Your task to perform on an android device: see sites visited before in the chrome app Image 0: 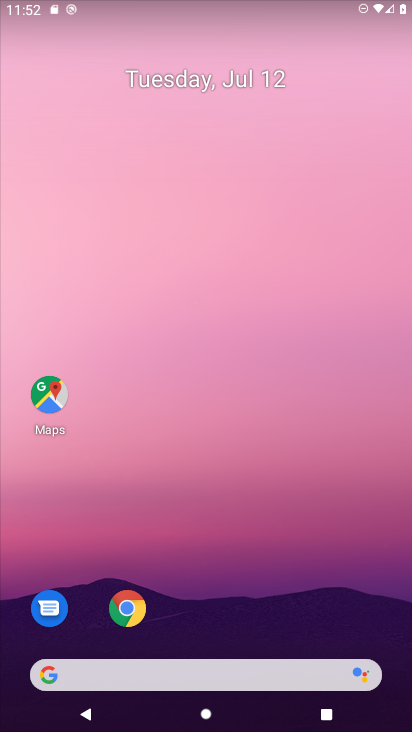
Step 0: drag from (258, 688) to (258, 131)
Your task to perform on an android device: see sites visited before in the chrome app Image 1: 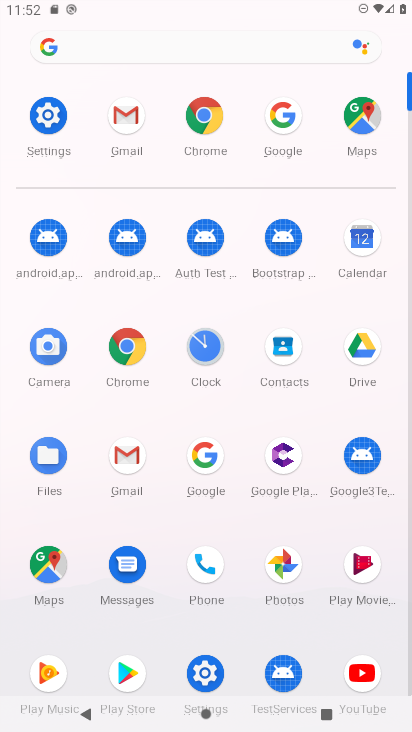
Step 1: click (202, 118)
Your task to perform on an android device: see sites visited before in the chrome app Image 2: 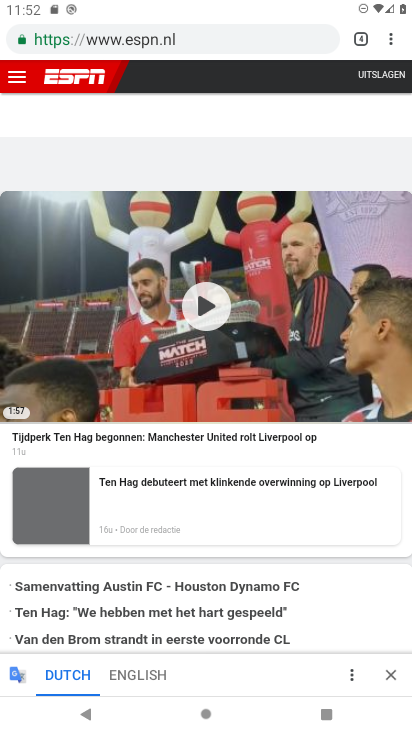
Step 2: click (392, 43)
Your task to perform on an android device: see sites visited before in the chrome app Image 3: 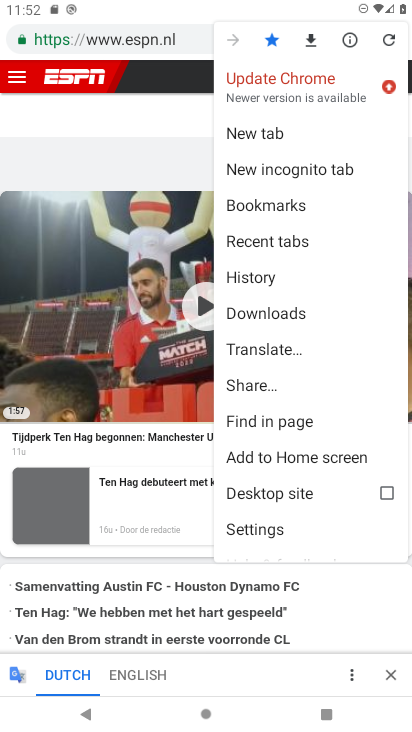
Step 3: click (255, 277)
Your task to perform on an android device: see sites visited before in the chrome app Image 4: 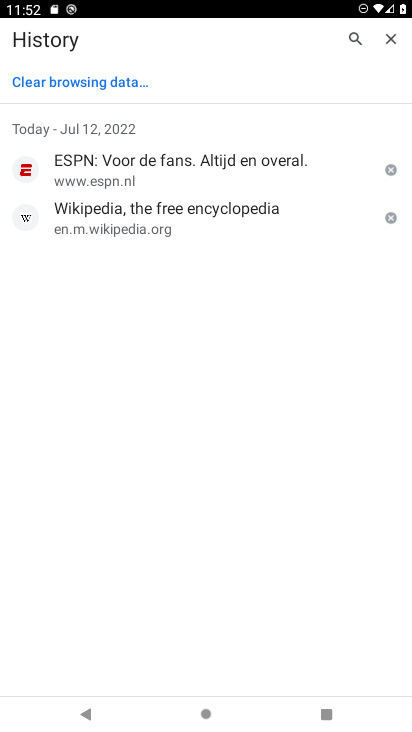
Step 4: task complete